Your task to perform on an android device: open chrome and create a bookmark for the current page Image 0: 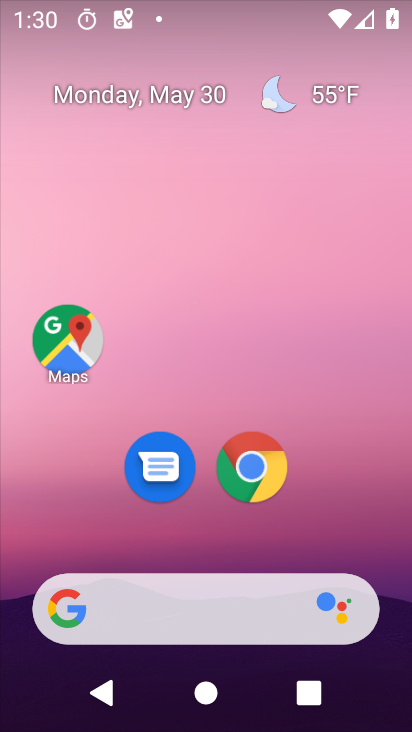
Step 0: click (243, 469)
Your task to perform on an android device: open chrome and create a bookmark for the current page Image 1: 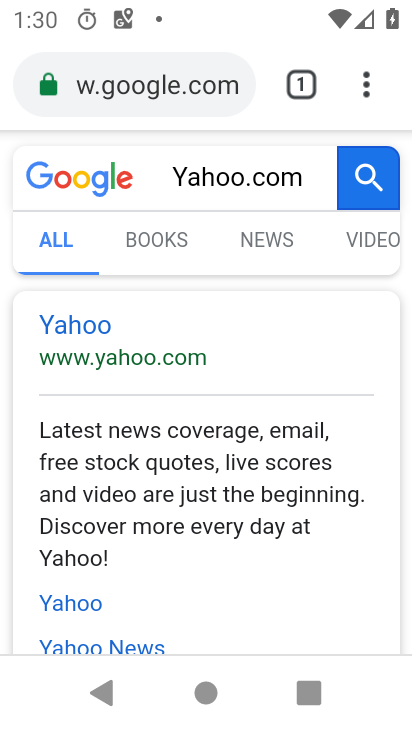
Step 1: click (364, 80)
Your task to perform on an android device: open chrome and create a bookmark for the current page Image 2: 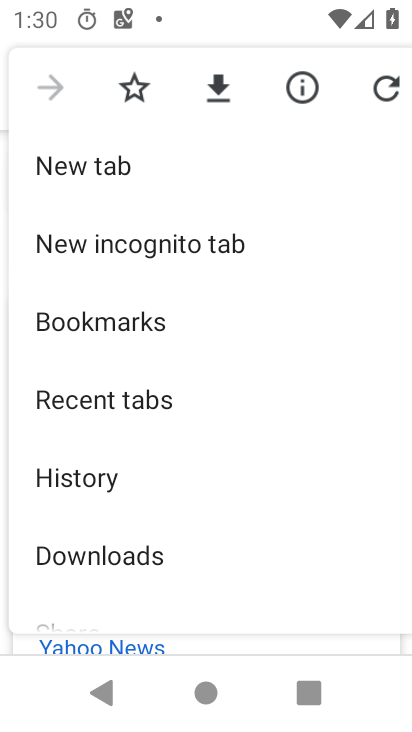
Step 2: click (137, 85)
Your task to perform on an android device: open chrome and create a bookmark for the current page Image 3: 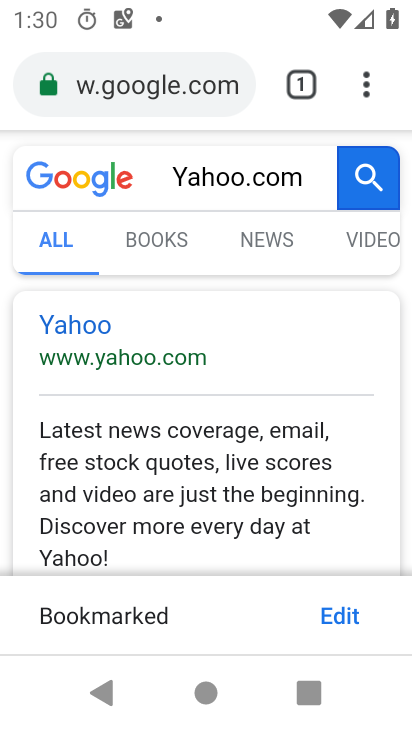
Step 3: task complete